Your task to perform on an android device: Open Google Image 0: 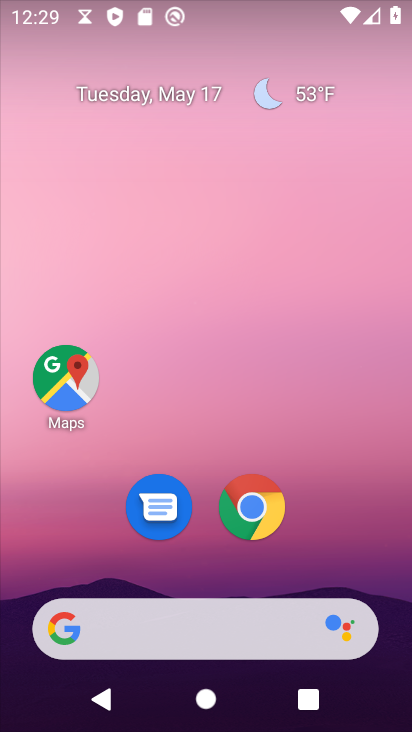
Step 0: drag from (213, 573) to (197, 5)
Your task to perform on an android device: Open Google Image 1: 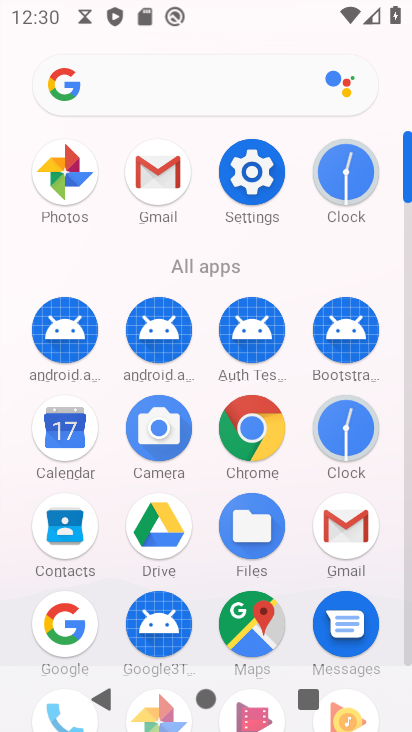
Step 1: click (67, 625)
Your task to perform on an android device: Open Google Image 2: 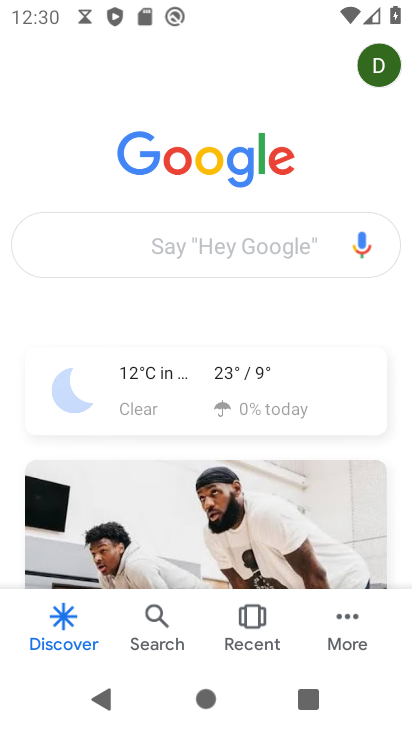
Step 2: task complete